Your task to perform on an android device: Do I have any events tomorrow? Image 0: 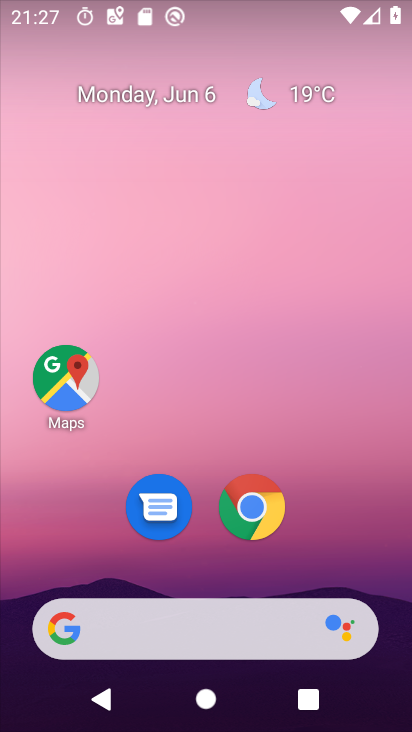
Step 0: drag from (334, 520) to (275, 288)
Your task to perform on an android device: Do I have any events tomorrow? Image 1: 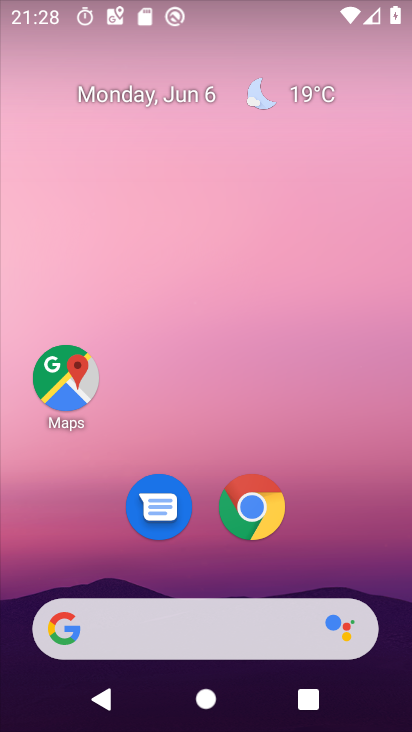
Step 1: drag from (357, 506) to (279, 134)
Your task to perform on an android device: Do I have any events tomorrow? Image 2: 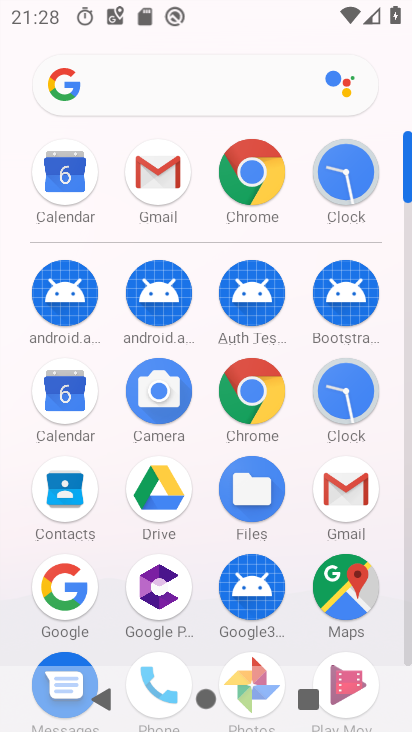
Step 2: click (47, 170)
Your task to perform on an android device: Do I have any events tomorrow? Image 3: 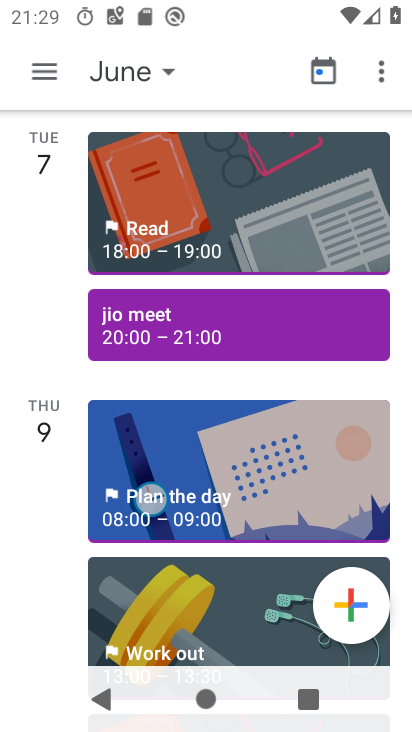
Step 3: click (154, 78)
Your task to perform on an android device: Do I have any events tomorrow? Image 4: 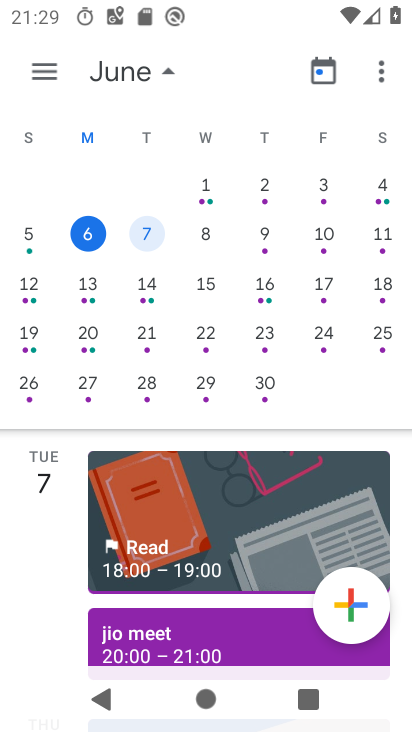
Step 4: click (193, 241)
Your task to perform on an android device: Do I have any events tomorrow? Image 5: 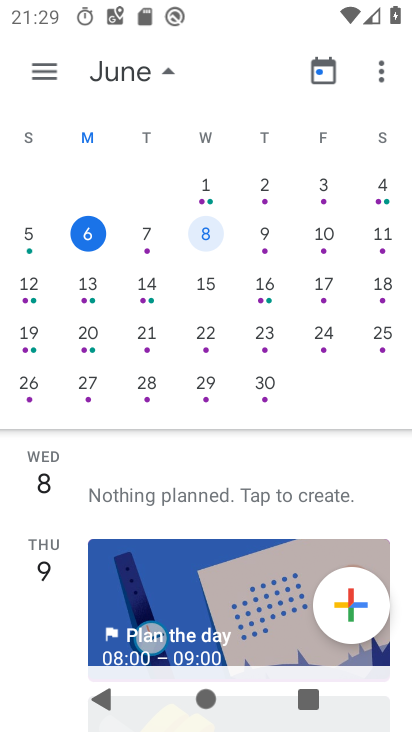
Step 5: click (160, 75)
Your task to perform on an android device: Do I have any events tomorrow? Image 6: 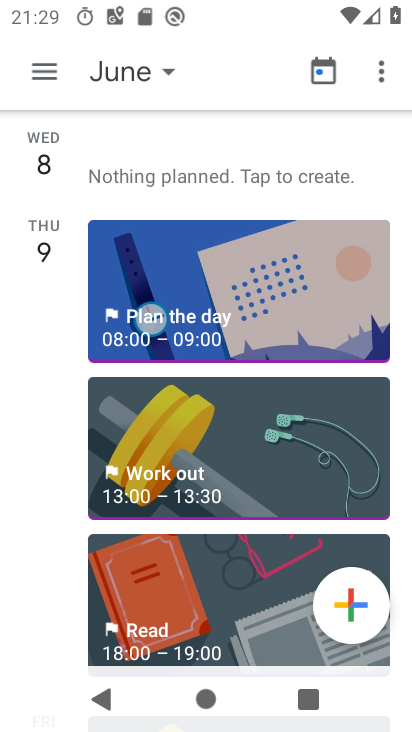
Step 6: task complete